Your task to perform on an android device: open a bookmark in the chrome app Image 0: 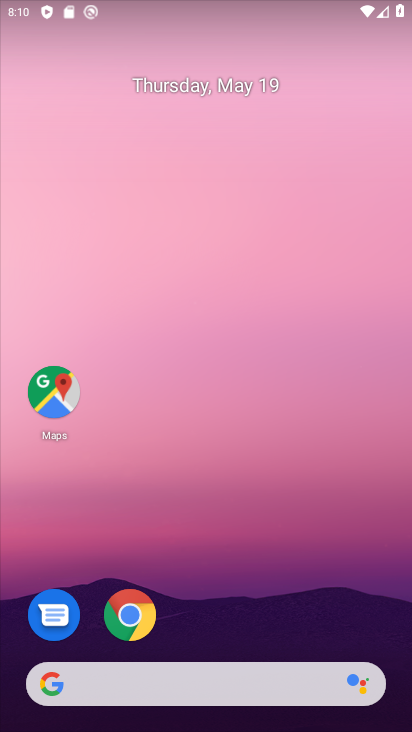
Step 0: click (129, 615)
Your task to perform on an android device: open a bookmark in the chrome app Image 1: 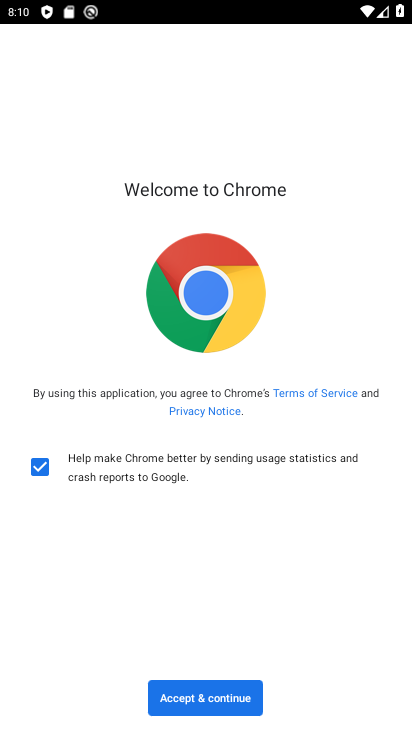
Step 1: click (193, 692)
Your task to perform on an android device: open a bookmark in the chrome app Image 2: 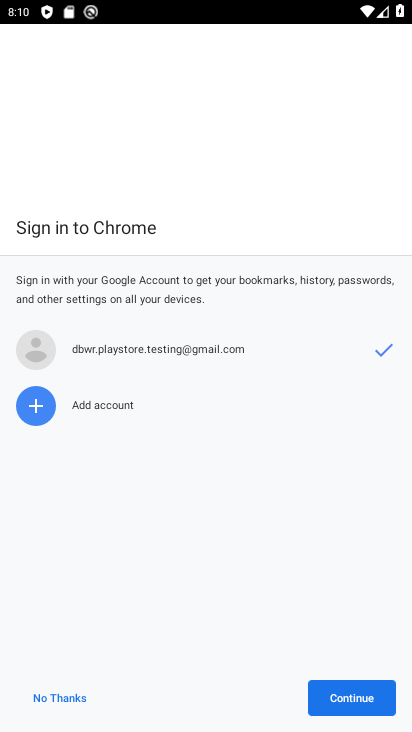
Step 2: click (355, 701)
Your task to perform on an android device: open a bookmark in the chrome app Image 3: 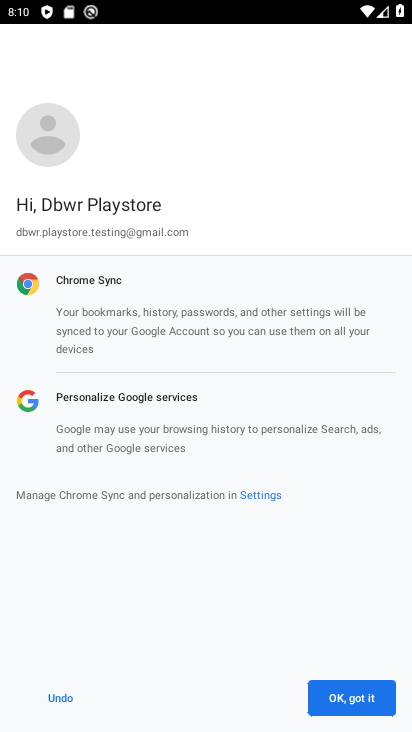
Step 3: click (355, 701)
Your task to perform on an android device: open a bookmark in the chrome app Image 4: 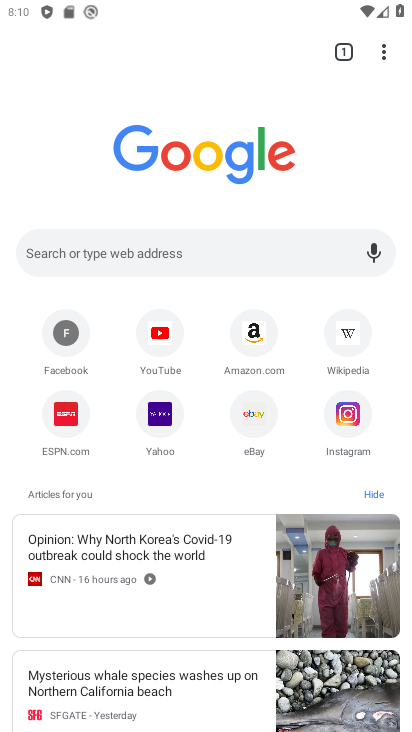
Step 4: click (383, 52)
Your task to perform on an android device: open a bookmark in the chrome app Image 5: 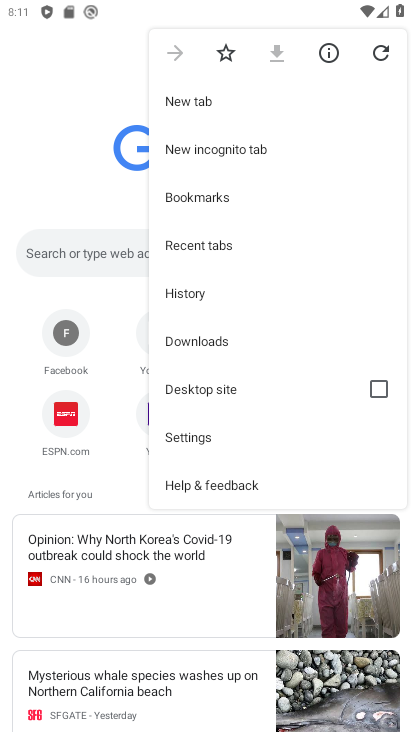
Step 5: click (192, 200)
Your task to perform on an android device: open a bookmark in the chrome app Image 6: 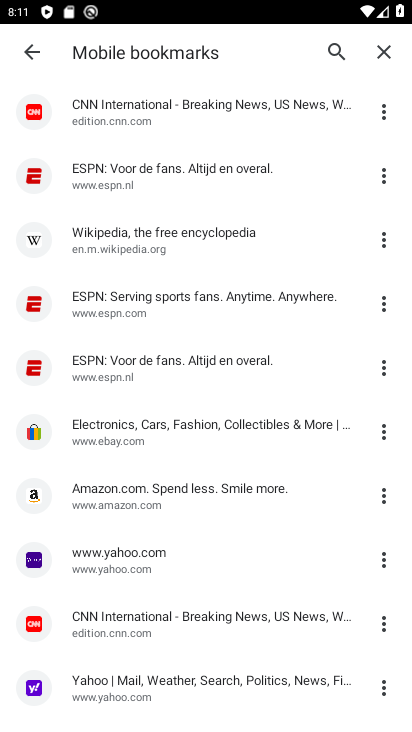
Step 6: task complete